Your task to perform on an android device: all mails in gmail Image 0: 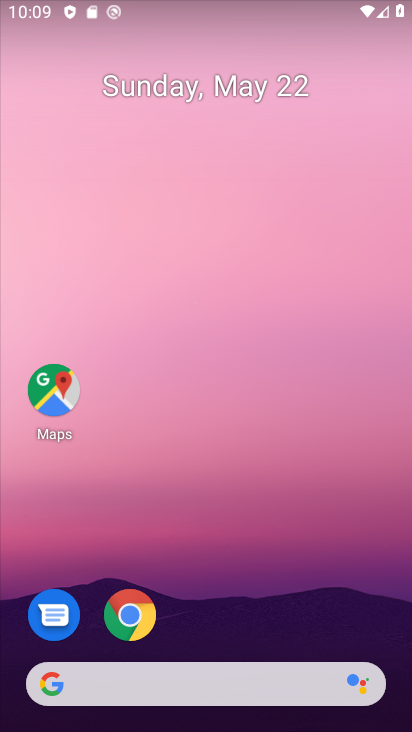
Step 0: drag from (248, 632) to (230, 152)
Your task to perform on an android device: all mails in gmail Image 1: 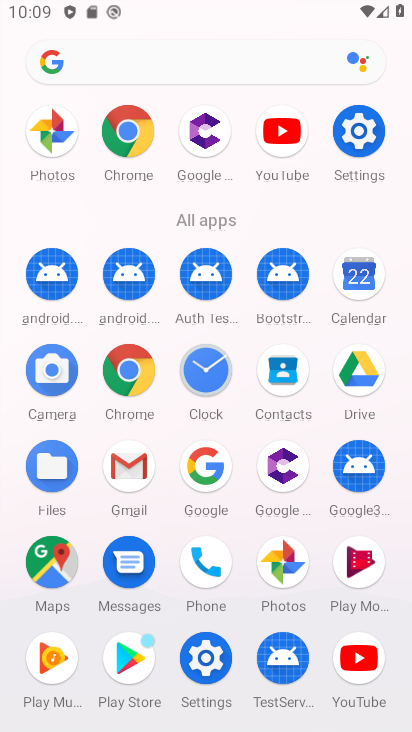
Step 1: click (125, 462)
Your task to perform on an android device: all mails in gmail Image 2: 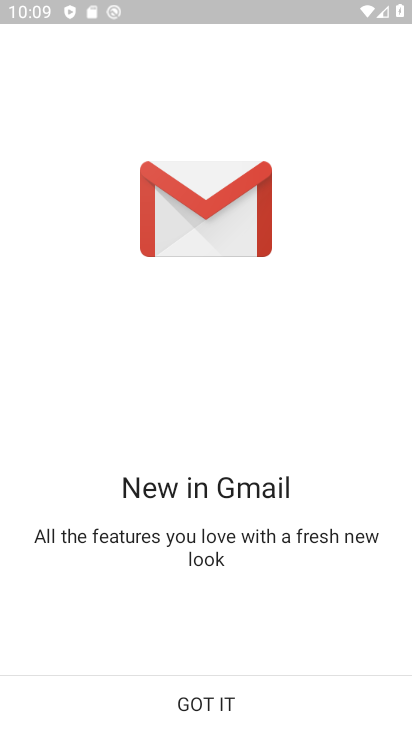
Step 2: click (194, 702)
Your task to perform on an android device: all mails in gmail Image 3: 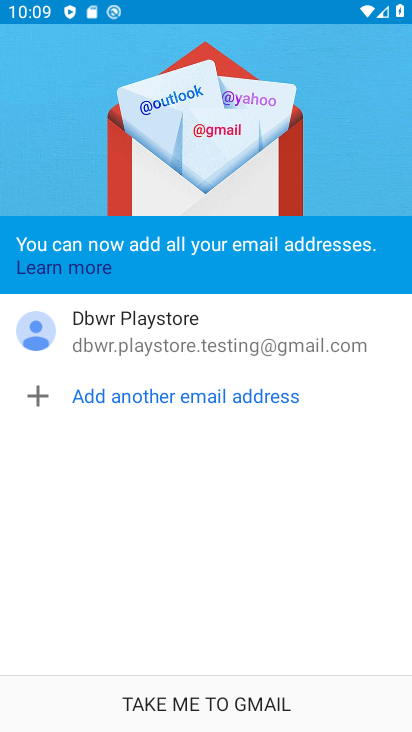
Step 3: click (194, 702)
Your task to perform on an android device: all mails in gmail Image 4: 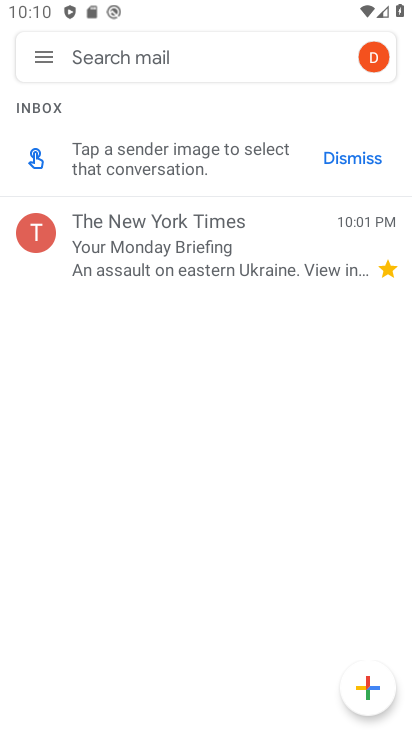
Step 4: click (42, 60)
Your task to perform on an android device: all mails in gmail Image 5: 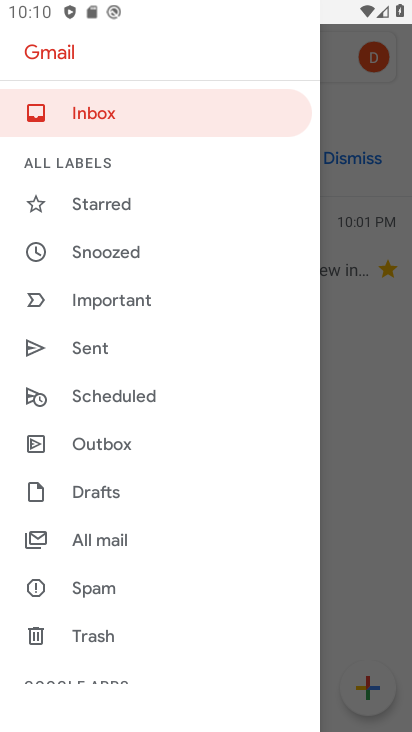
Step 5: click (132, 537)
Your task to perform on an android device: all mails in gmail Image 6: 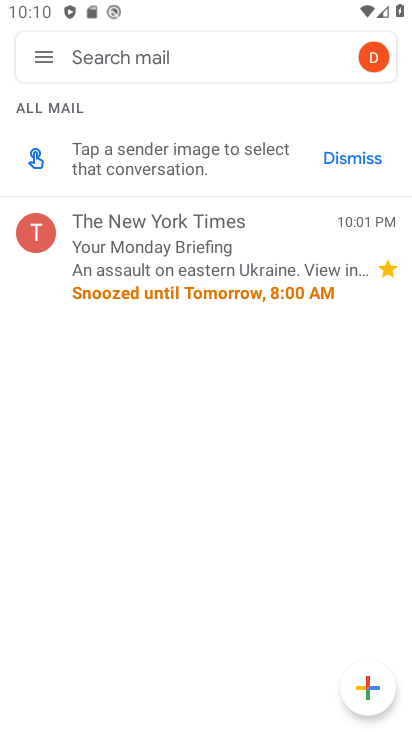
Step 6: task complete